Your task to perform on an android device: change keyboard looks Image 0: 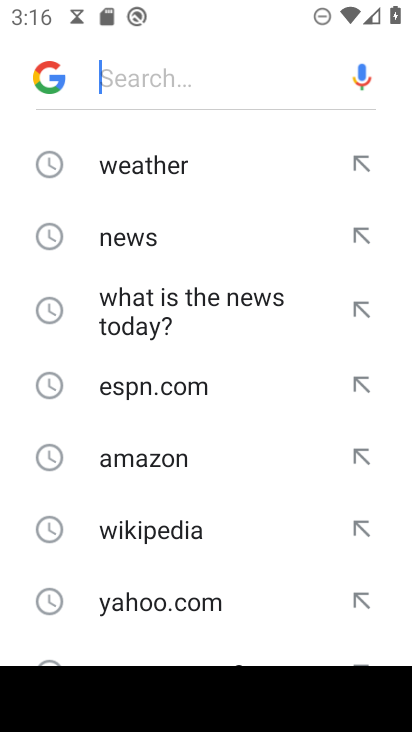
Step 0: press home button
Your task to perform on an android device: change keyboard looks Image 1: 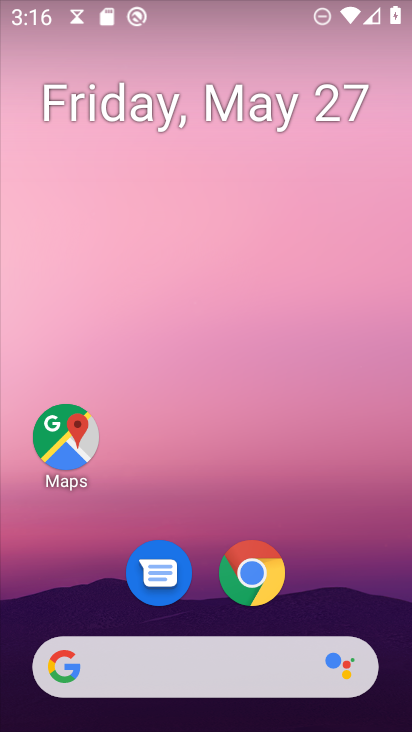
Step 1: drag from (344, 593) to (359, 17)
Your task to perform on an android device: change keyboard looks Image 2: 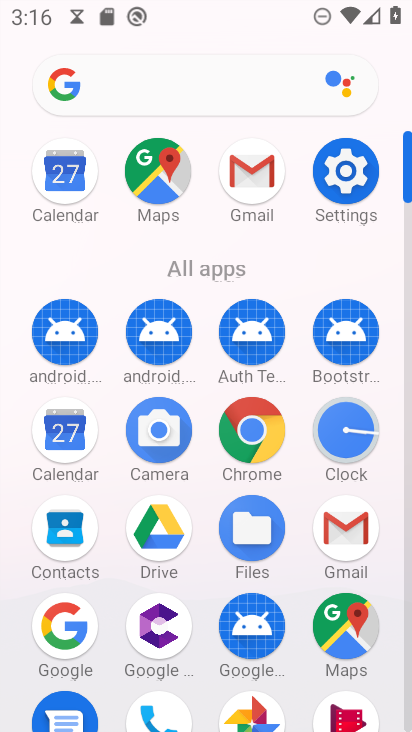
Step 2: click (343, 179)
Your task to perform on an android device: change keyboard looks Image 3: 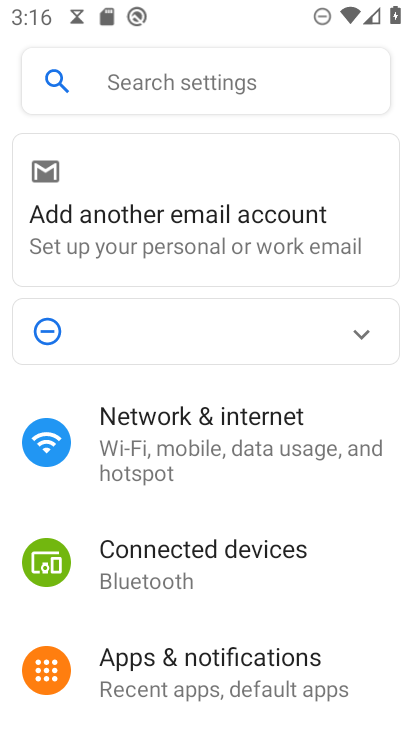
Step 3: drag from (186, 662) to (285, 183)
Your task to perform on an android device: change keyboard looks Image 4: 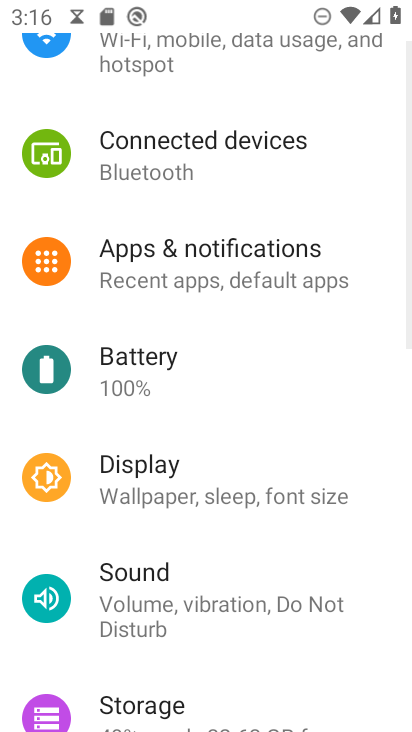
Step 4: drag from (210, 598) to (237, 70)
Your task to perform on an android device: change keyboard looks Image 5: 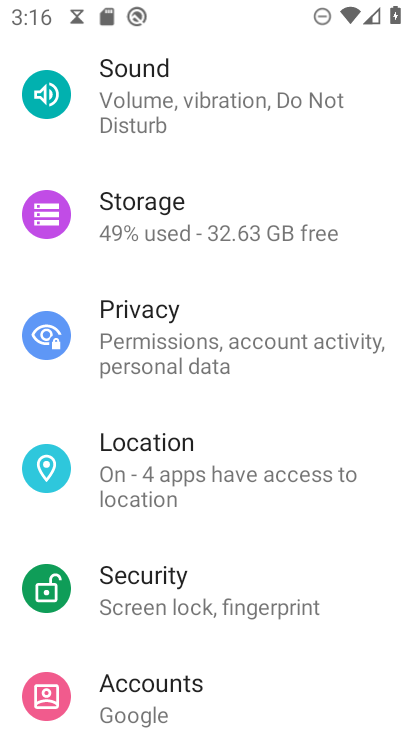
Step 5: drag from (232, 587) to (233, 80)
Your task to perform on an android device: change keyboard looks Image 6: 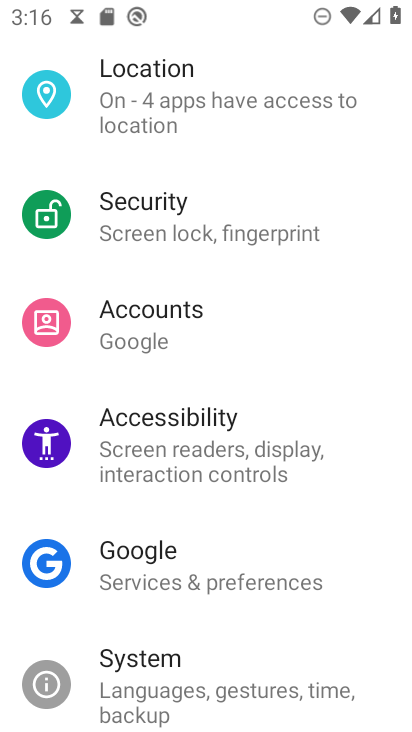
Step 6: click (145, 674)
Your task to perform on an android device: change keyboard looks Image 7: 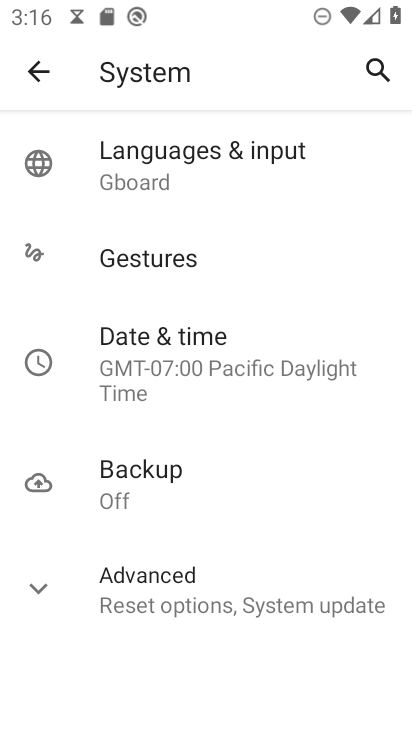
Step 7: click (150, 141)
Your task to perform on an android device: change keyboard looks Image 8: 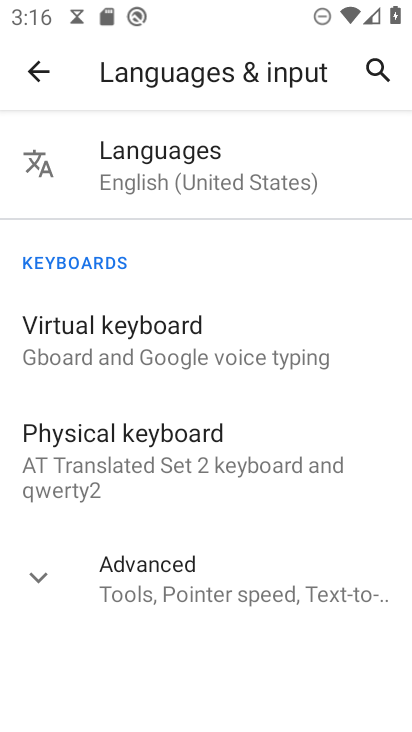
Step 8: click (153, 352)
Your task to perform on an android device: change keyboard looks Image 9: 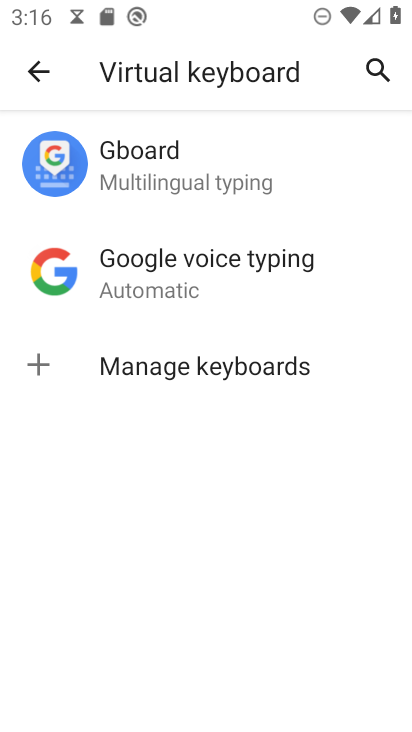
Step 9: click (183, 185)
Your task to perform on an android device: change keyboard looks Image 10: 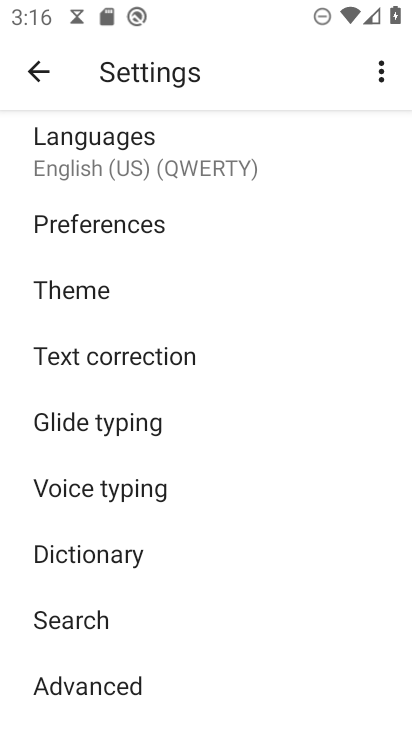
Step 10: click (104, 279)
Your task to perform on an android device: change keyboard looks Image 11: 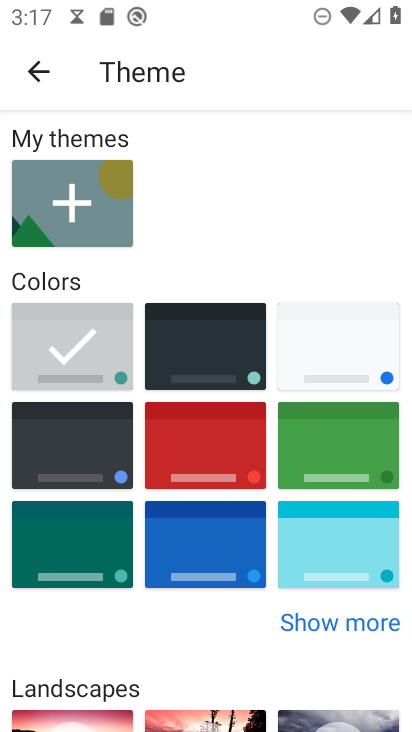
Step 11: click (195, 439)
Your task to perform on an android device: change keyboard looks Image 12: 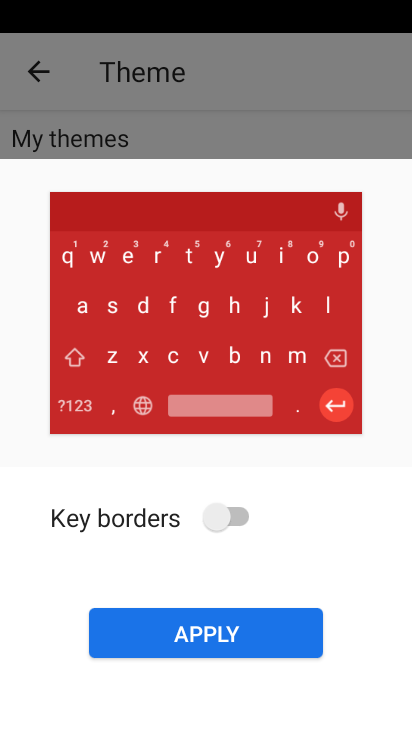
Step 12: click (264, 644)
Your task to perform on an android device: change keyboard looks Image 13: 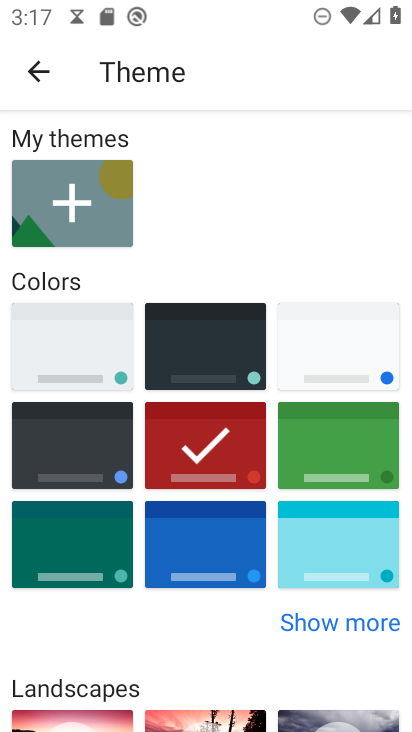
Step 13: task complete